Your task to perform on an android device: Search for hotels in San Diego Image 0: 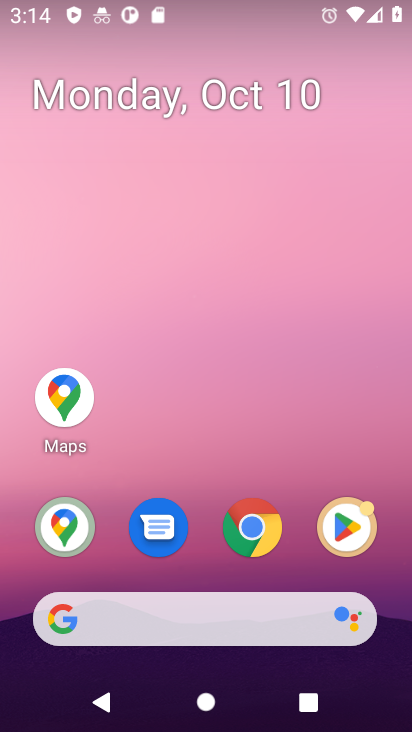
Step 0: click (68, 393)
Your task to perform on an android device: Search for hotels in San Diego Image 1: 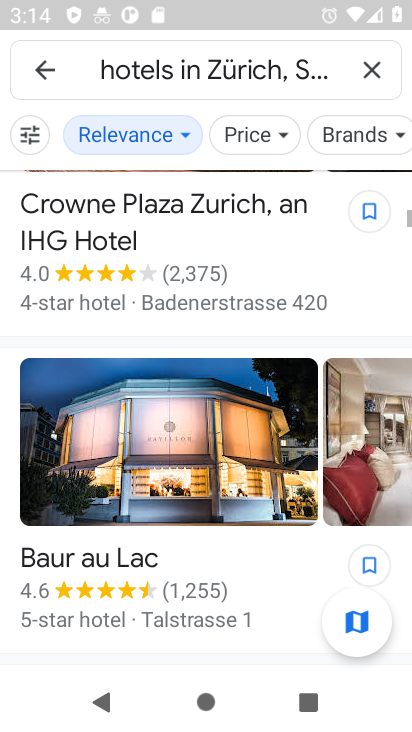
Step 1: click (371, 71)
Your task to perform on an android device: Search for hotels in San Diego Image 2: 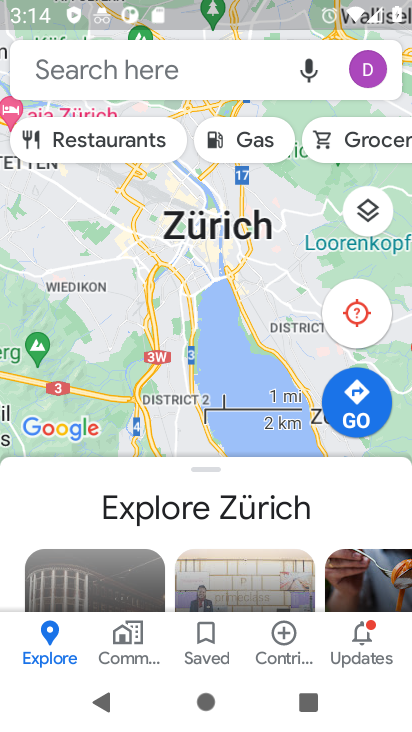
Step 2: click (219, 83)
Your task to perform on an android device: Search for hotels in San Diego Image 3: 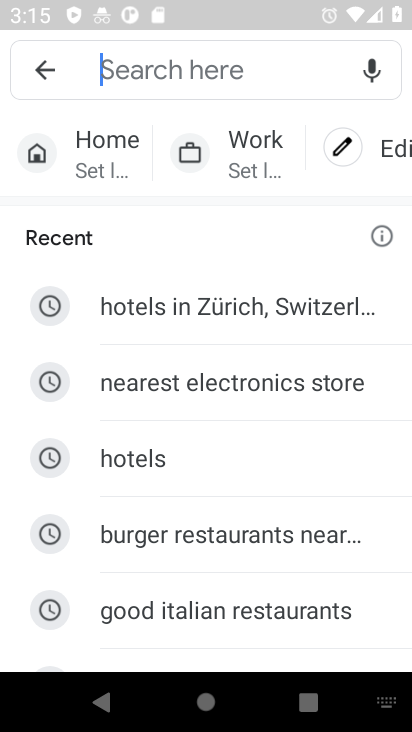
Step 3: type "hotels in San Diego"
Your task to perform on an android device: Search for hotels in San Diego Image 4: 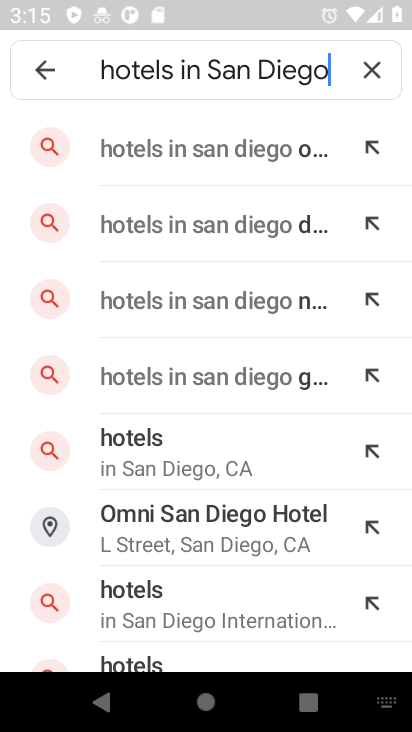
Step 4: click (208, 153)
Your task to perform on an android device: Search for hotels in San Diego Image 5: 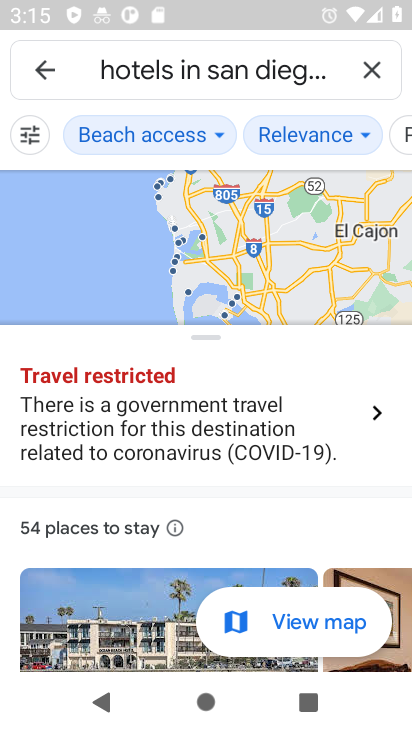
Step 5: task complete